Your task to perform on an android device: Go to privacy settings Image 0: 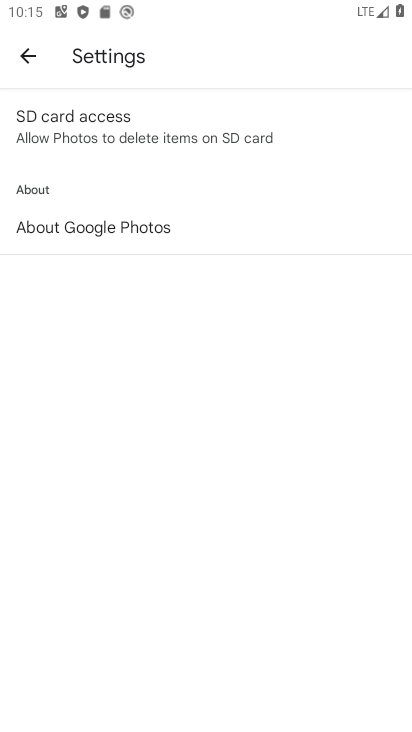
Step 0: press home button
Your task to perform on an android device: Go to privacy settings Image 1: 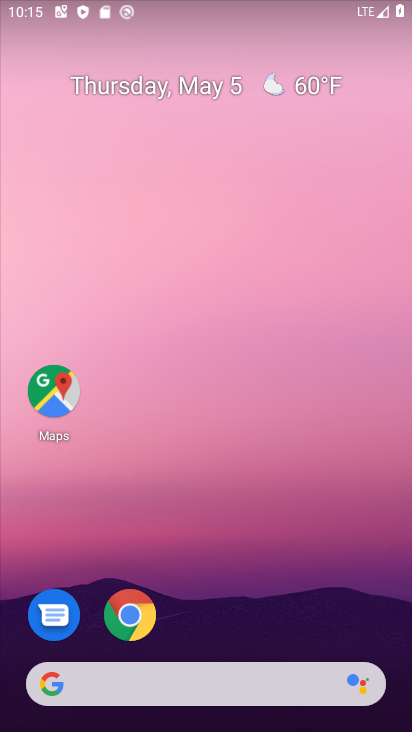
Step 1: drag from (248, 601) to (276, 130)
Your task to perform on an android device: Go to privacy settings Image 2: 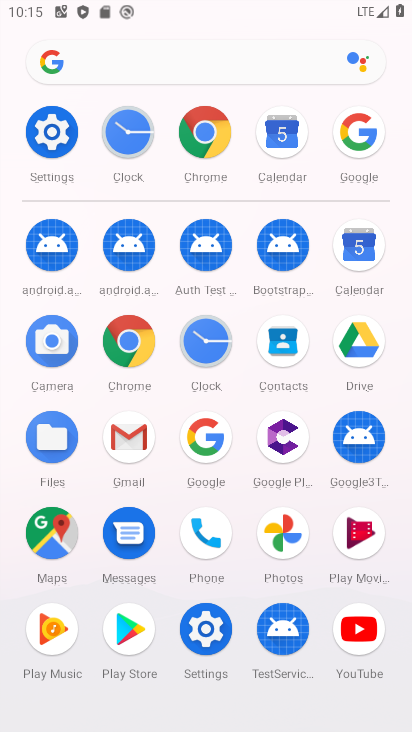
Step 2: click (210, 134)
Your task to perform on an android device: Go to privacy settings Image 3: 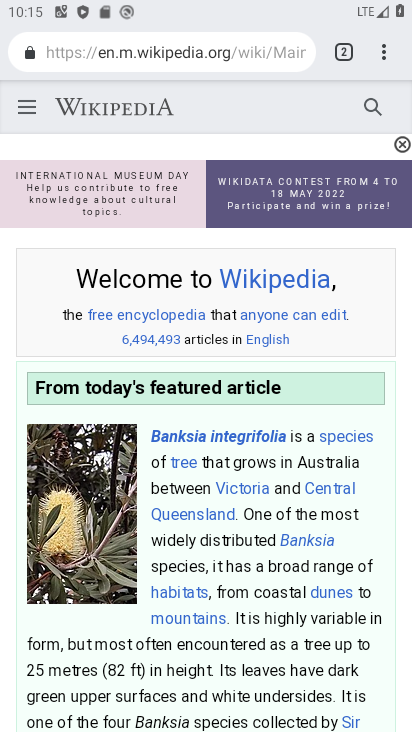
Step 3: click (377, 47)
Your task to perform on an android device: Go to privacy settings Image 4: 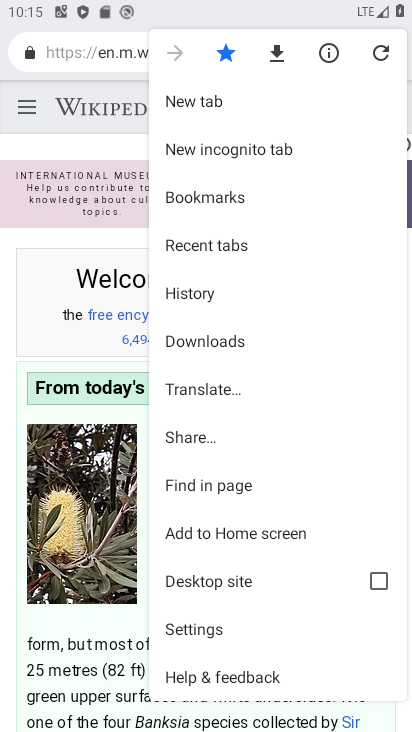
Step 4: click (212, 625)
Your task to perform on an android device: Go to privacy settings Image 5: 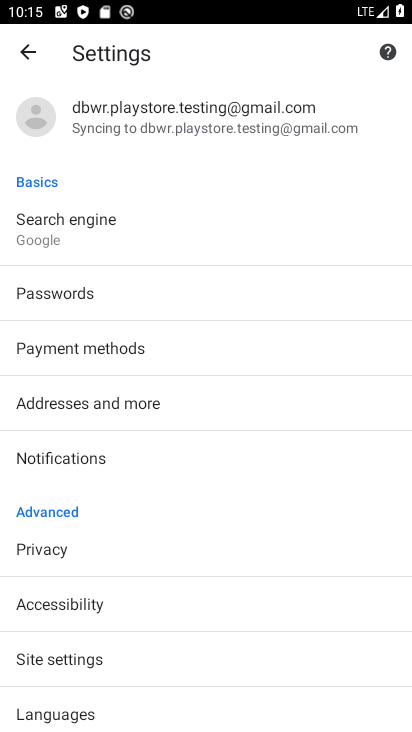
Step 5: click (108, 551)
Your task to perform on an android device: Go to privacy settings Image 6: 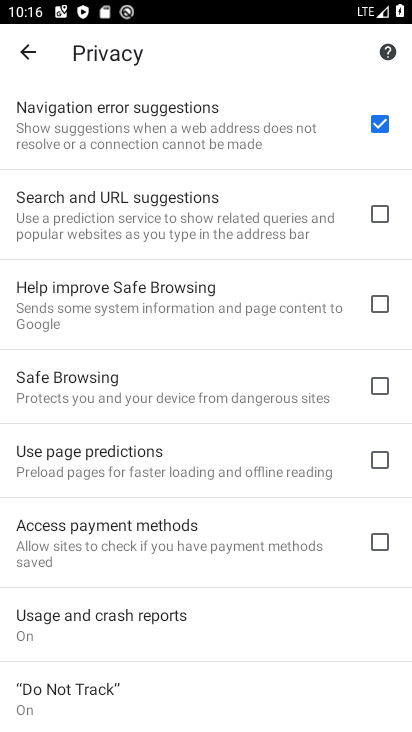
Step 6: task complete